Your task to perform on an android device: turn on sleep mode Image 0: 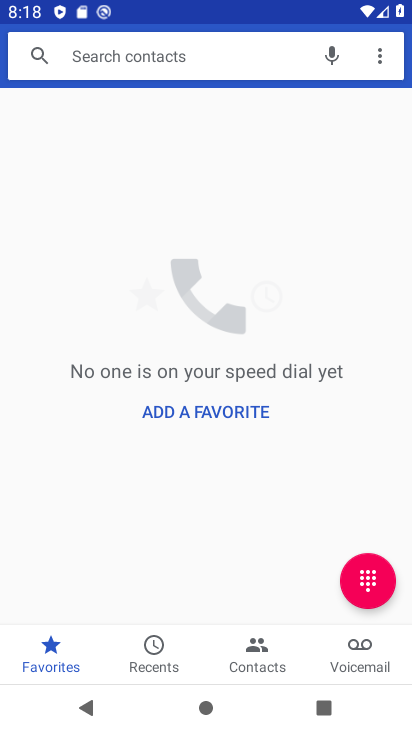
Step 0: press home button
Your task to perform on an android device: turn on sleep mode Image 1: 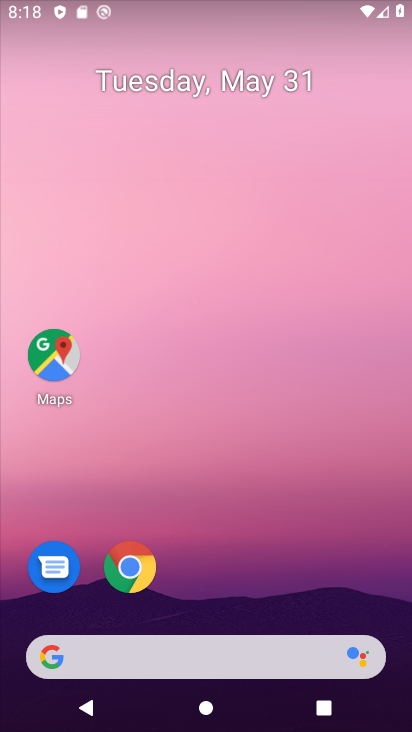
Step 1: drag from (215, 573) to (284, 91)
Your task to perform on an android device: turn on sleep mode Image 2: 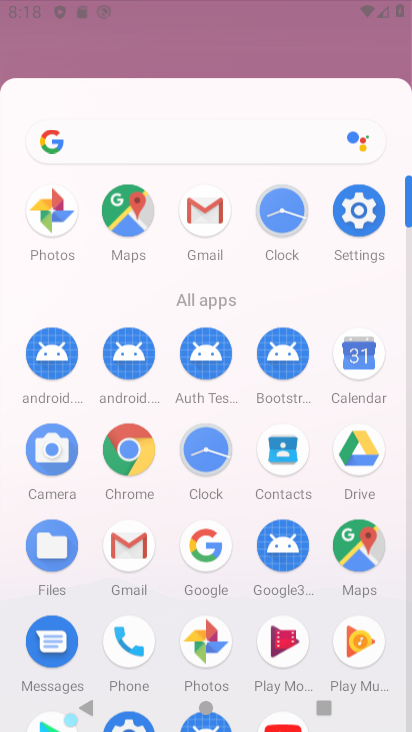
Step 2: drag from (232, 340) to (269, 119)
Your task to perform on an android device: turn on sleep mode Image 3: 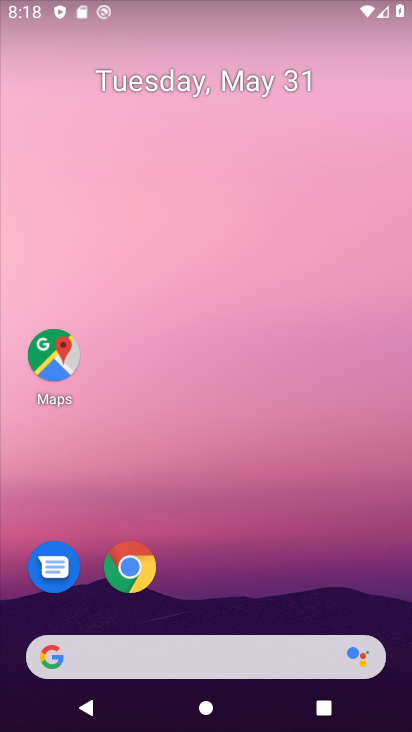
Step 3: click (346, 140)
Your task to perform on an android device: turn on sleep mode Image 4: 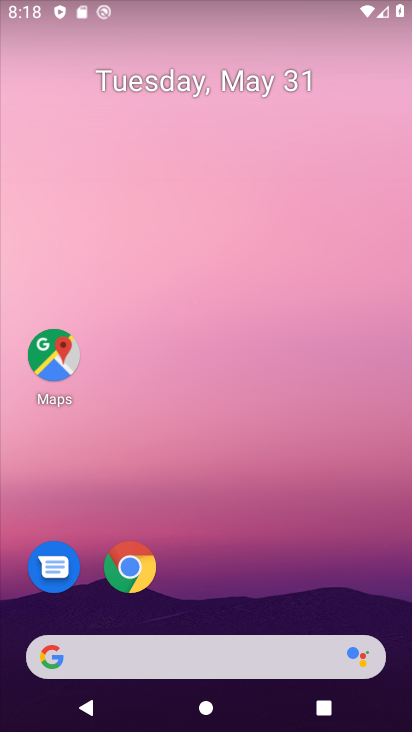
Step 4: drag from (376, 134) to (411, 23)
Your task to perform on an android device: turn on sleep mode Image 5: 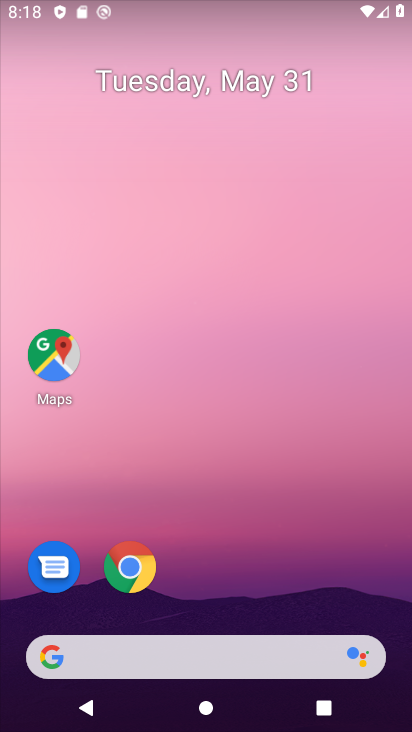
Step 5: drag from (263, 649) to (272, 152)
Your task to perform on an android device: turn on sleep mode Image 6: 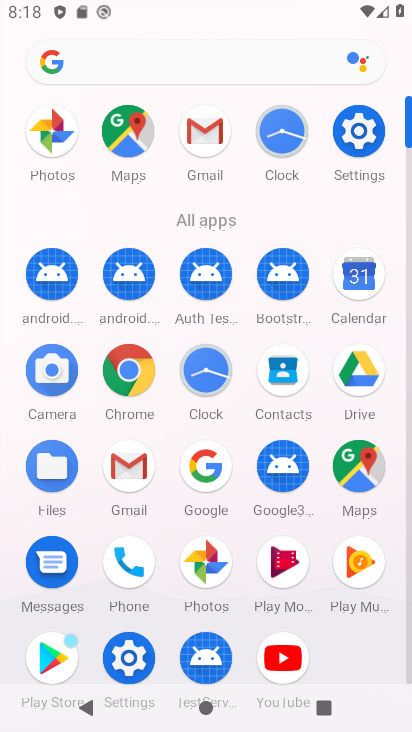
Step 6: click (346, 153)
Your task to perform on an android device: turn on sleep mode Image 7: 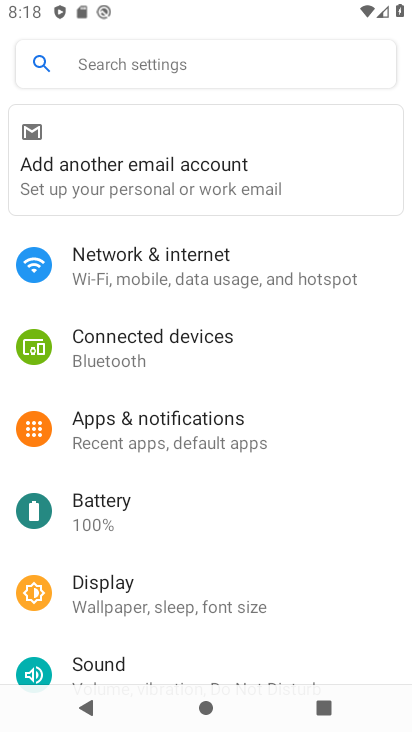
Step 7: click (152, 608)
Your task to perform on an android device: turn on sleep mode Image 8: 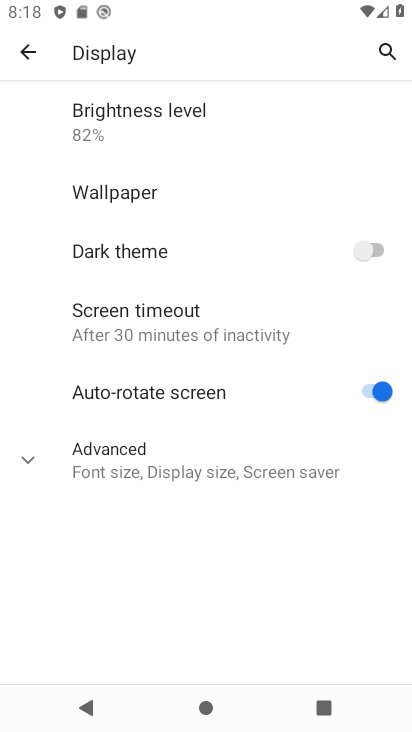
Step 8: click (120, 334)
Your task to perform on an android device: turn on sleep mode Image 9: 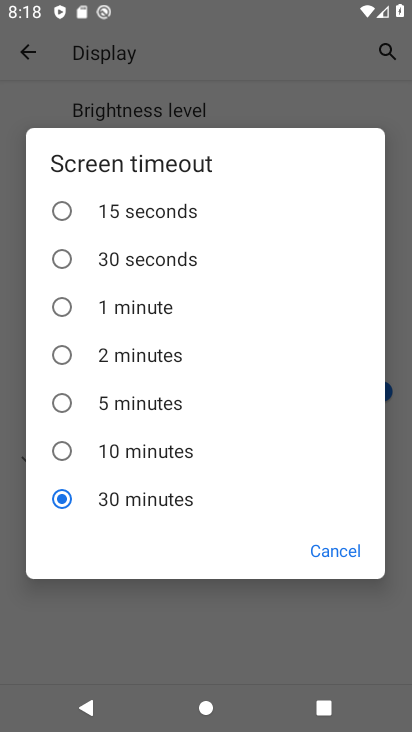
Step 9: click (151, 209)
Your task to perform on an android device: turn on sleep mode Image 10: 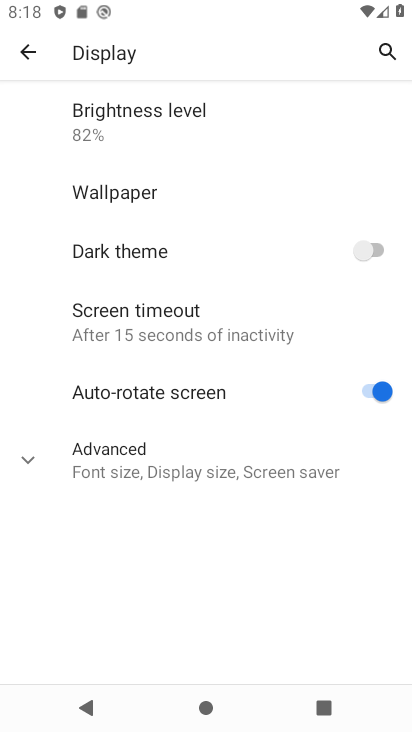
Step 10: task complete